Your task to perform on an android device: clear history in the chrome app Image 0: 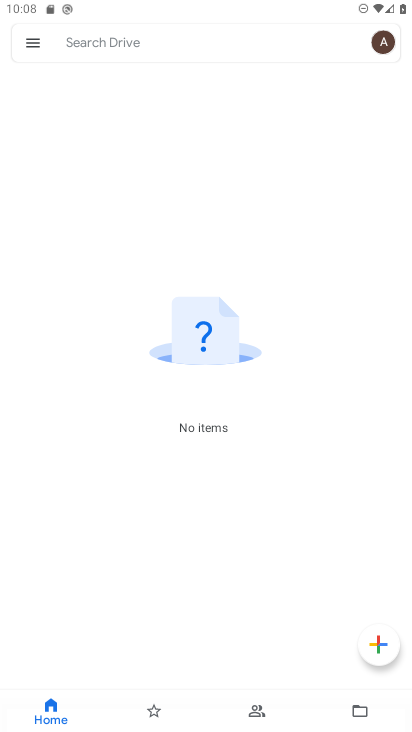
Step 0: press home button
Your task to perform on an android device: clear history in the chrome app Image 1: 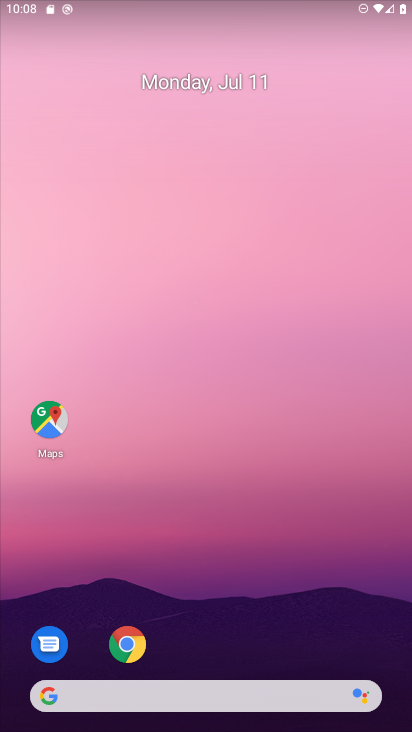
Step 1: click (123, 643)
Your task to perform on an android device: clear history in the chrome app Image 2: 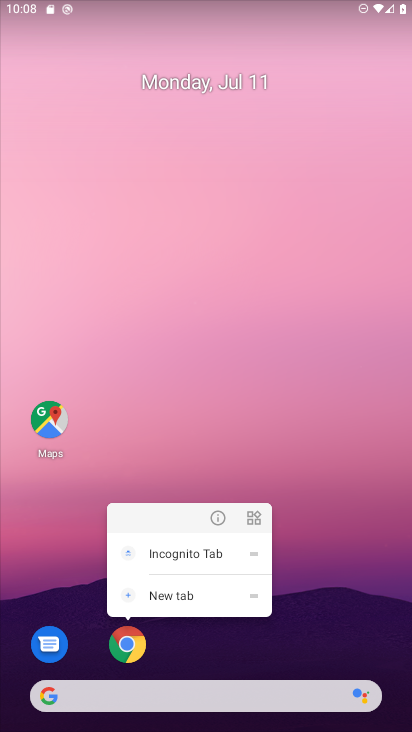
Step 2: click (123, 643)
Your task to perform on an android device: clear history in the chrome app Image 3: 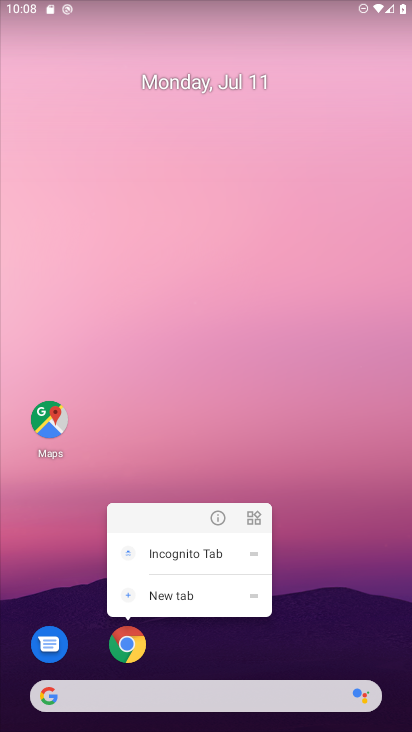
Step 3: click (129, 645)
Your task to perform on an android device: clear history in the chrome app Image 4: 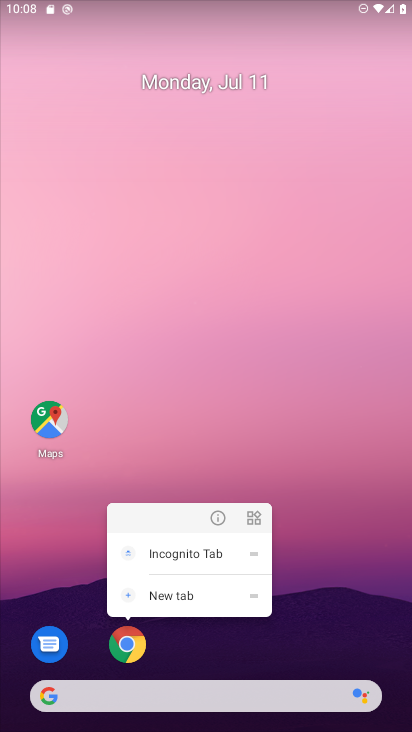
Step 4: click (129, 645)
Your task to perform on an android device: clear history in the chrome app Image 5: 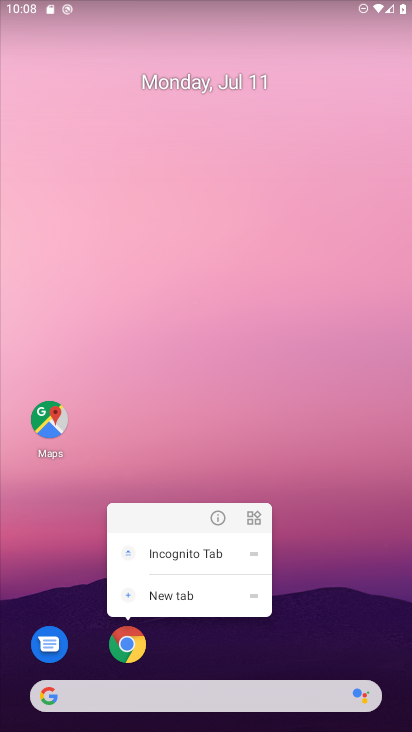
Step 5: click (129, 649)
Your task to perform on an android device: clear history in the chrome app Image 6: 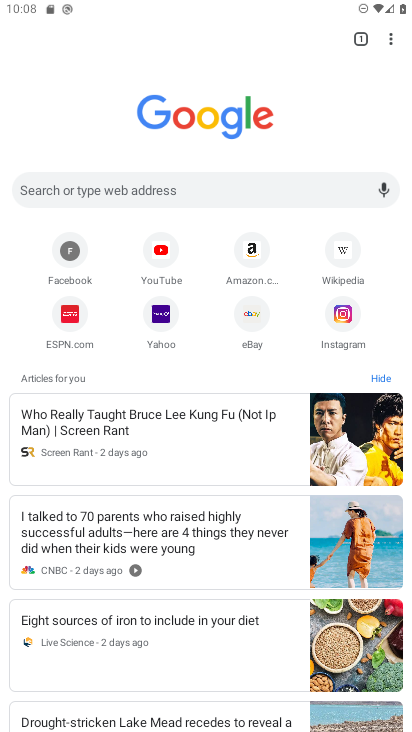
Step 6: click (390, 33)
Your task to perform on an android device: clear history in the chrome app Image 7: 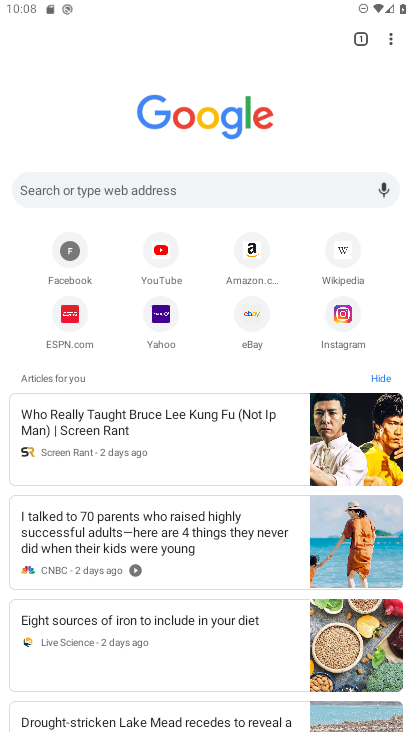
Step 7: click (390, 33)
Your task to perform on an android device: clear history in the chrome app Image 8: 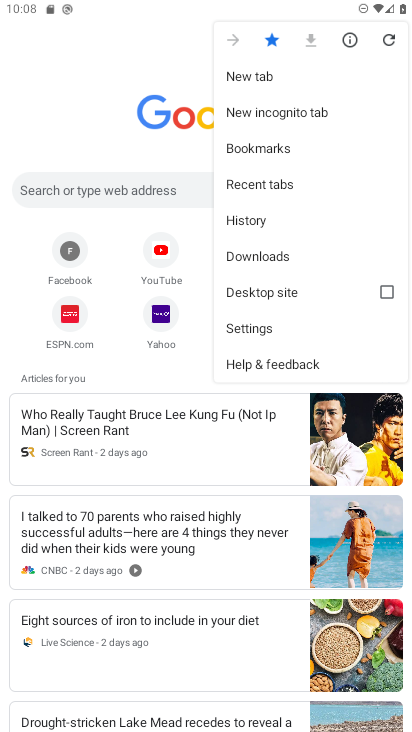
Step 8: click (259, 219)
Your task to perform on an android device: clear history in the chrome app Image 9: 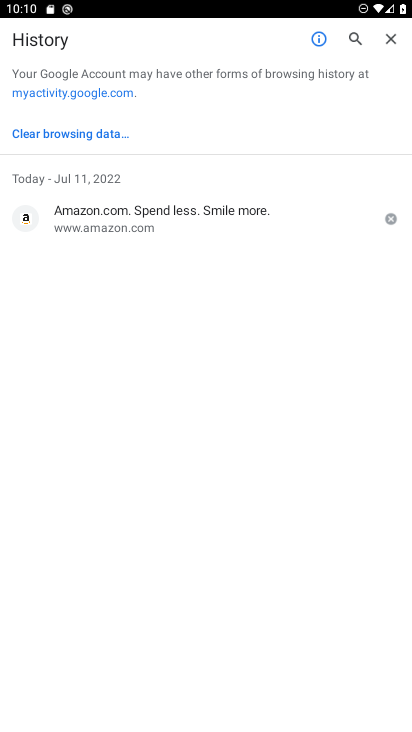
Step 9: click (111, 131)
Your task to perform on an android device: clear history in the chrome app Image 10: 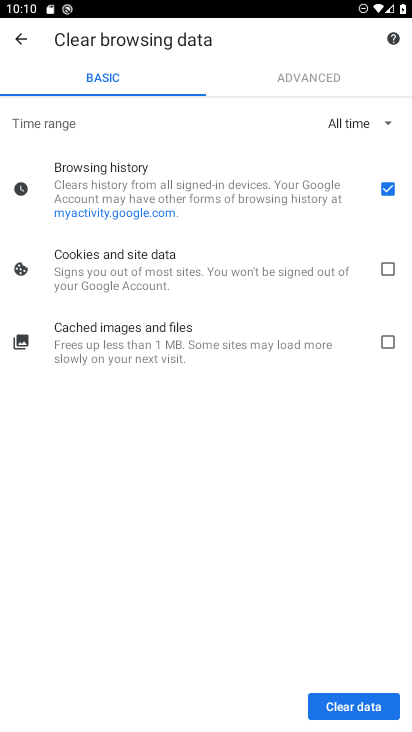
Step 10: click (372, 708)
Your task to perform on an android device: clear history in the chrome app Image 11: 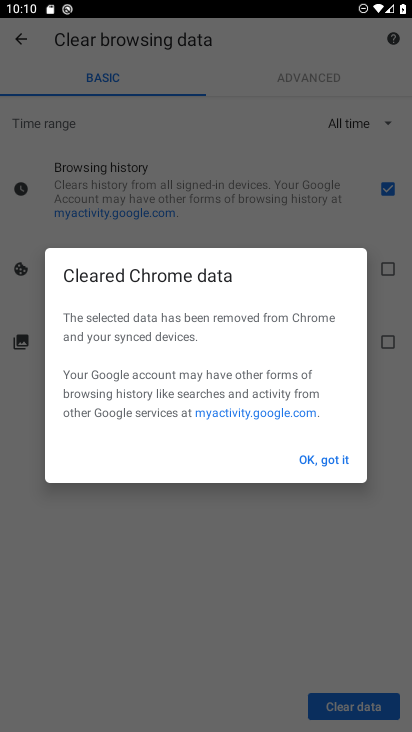
Step 11: click (319, 455)
Your task to perform on an android device: clear history in the chrome app Image 12: 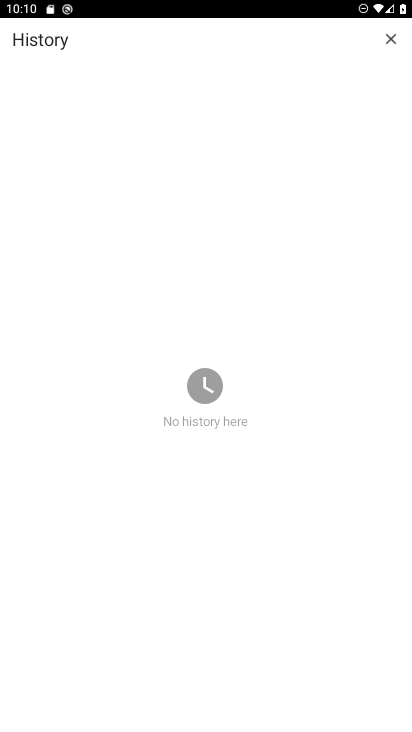
Step 12: task complete